Your task to perform on an android device: change notifications settings Image 0: 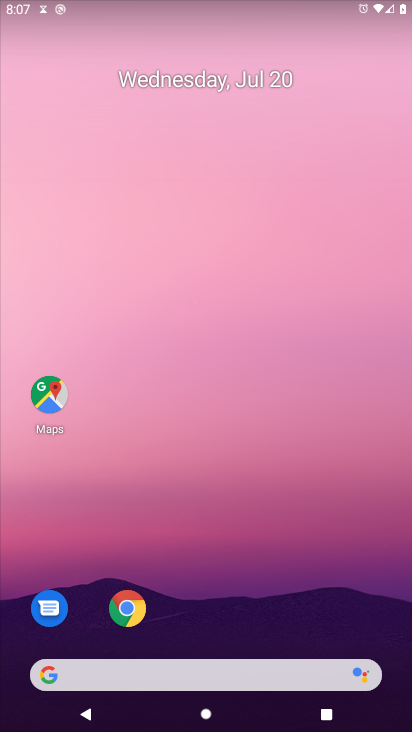
Step 0: drag from (193, 654) to (240, 247)
Your task to perform on an android device: change notifications settings Image 1: 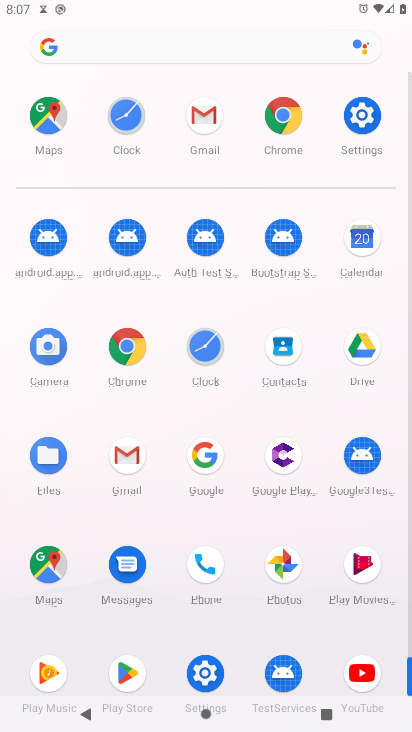
Step 1: click (204, 670)
Your task to perform on an android device: change notifications settings Image 2: 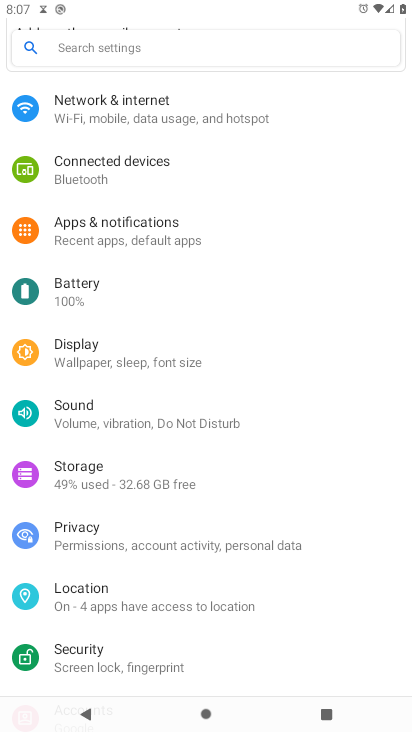
Step 2: click (131, 229)
Your task to perform on an android device: change notifications settings Image 3: 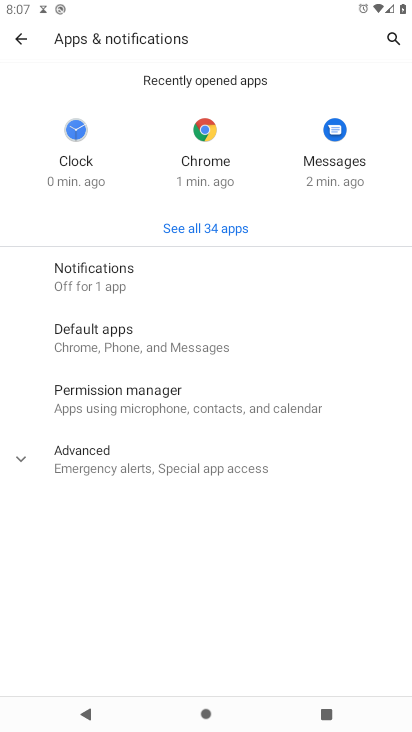
Step 3: click (115, 267)
Your task to perform on an android device: change notifications settings Image 4: 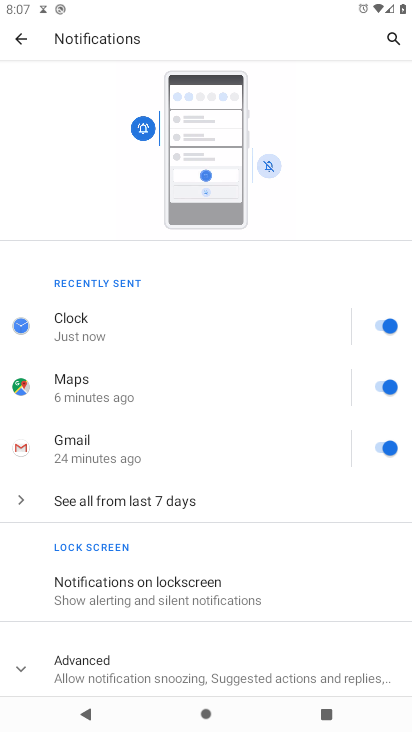
Step 4: click (129, 505)
Your task to perform on an android device: change notifications settings Image 5: 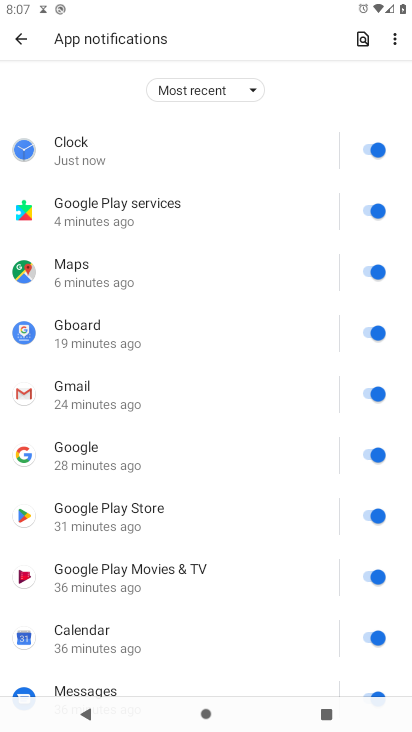
Step 5: click (361, 144)
Your task to perform on an android device: change notifications settings Image 6: 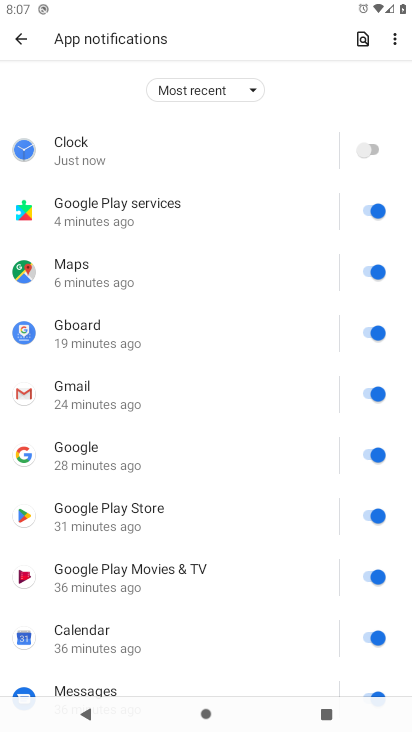
Step 6: click (364, 206)
Your task to perform on an android device: change notifications settings Image 7: 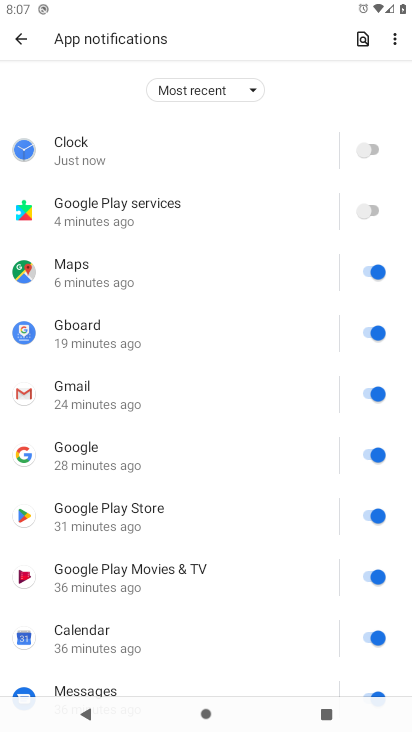
Step 7: click (362, 284)
Your task to perform on an android device: change notifications settings Image 8: 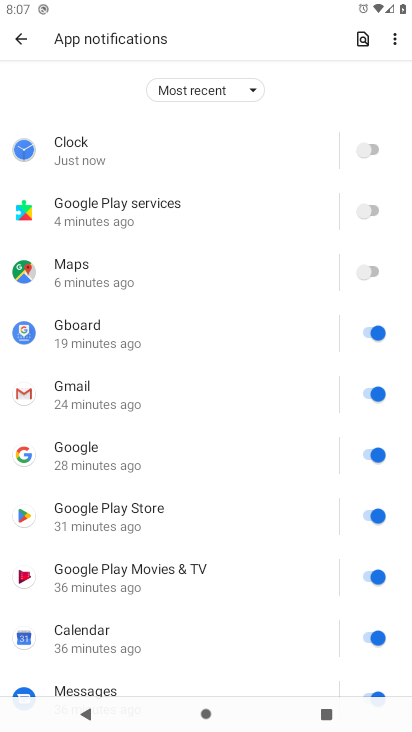
Step 8: click (363, 342)
Your task to perform on an android device: change notifications settings Image 9: 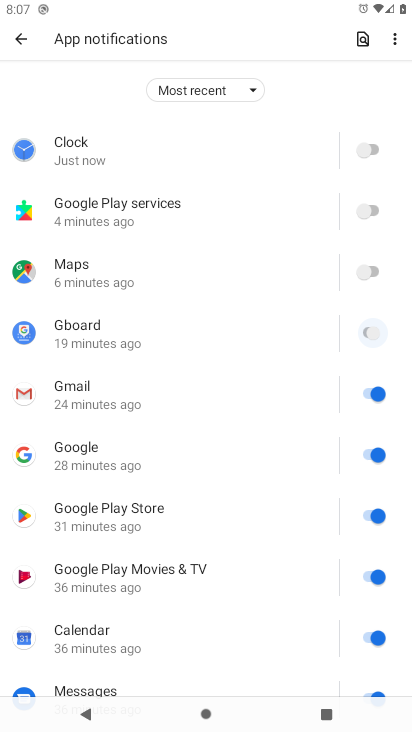
Step 9: click (358, 406)
Your task to perform on an android device: change notifications settings Image 10: 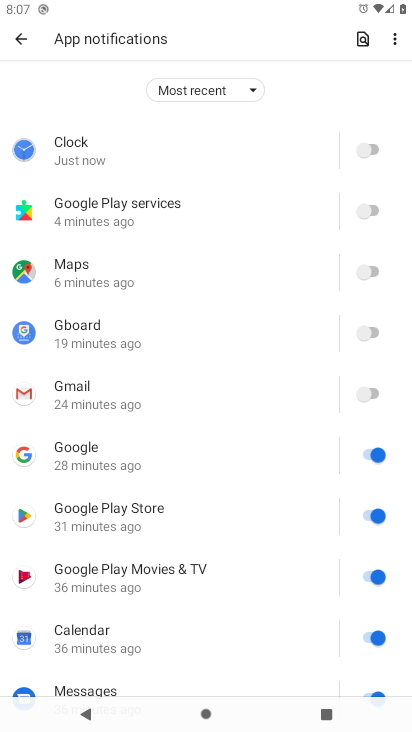
Step 10: click (352, 401)
Your task to perform on an android device: change notifications settings Image 11: 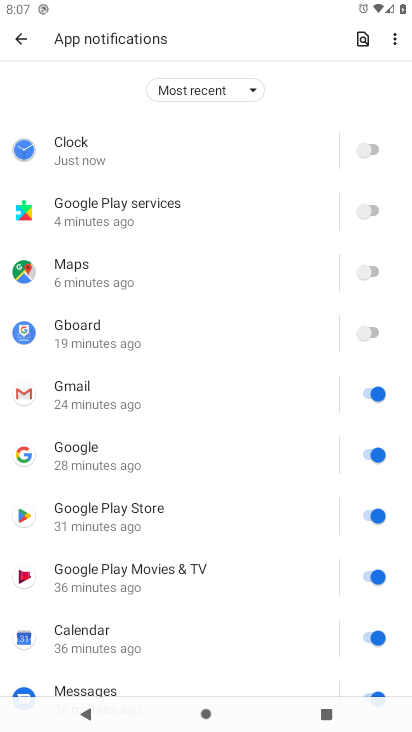
Step 11: click (349, 398)
Your task to perform on an android device: change notifications settings Image 12: 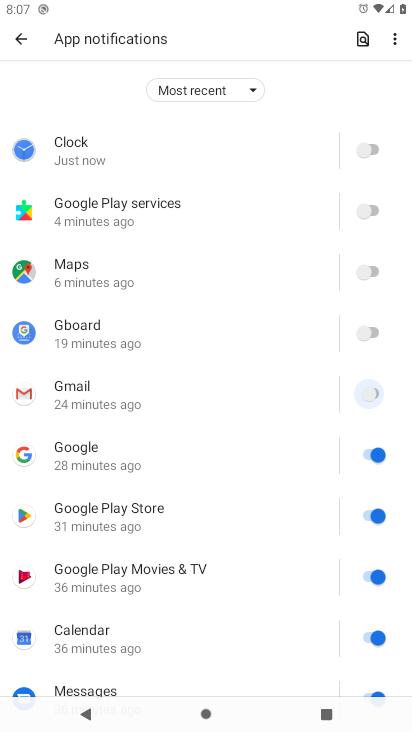
Step 12: click (358, 461)
Your task to perform on an android device: change notifications settings Image 13: 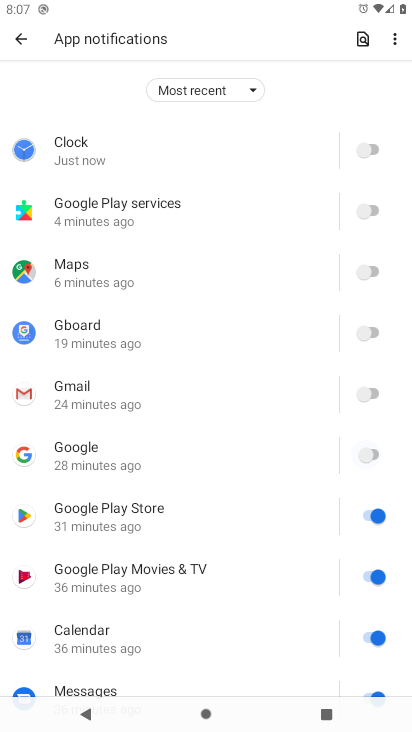
Step 13: click (353, 517)
Your task to perform on an android device: change notifications settings Image 14: 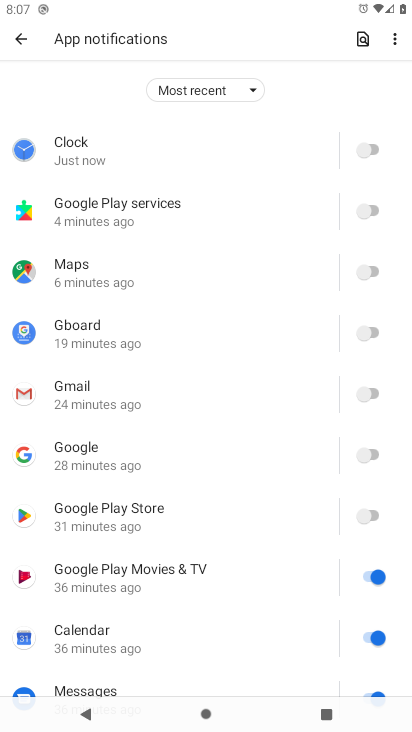
Step 14: click (361, 583)
Your task to perform on an android device: change notifications settings Image 15: 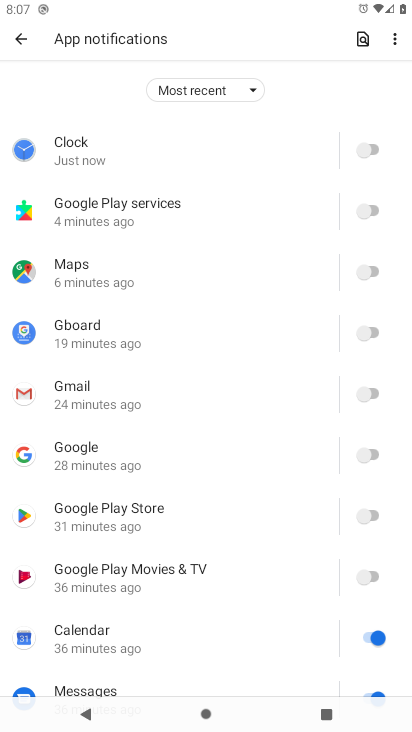
Step 15: click (350, 638)
Your task to perform on an android device: change notifications settings Image 16: 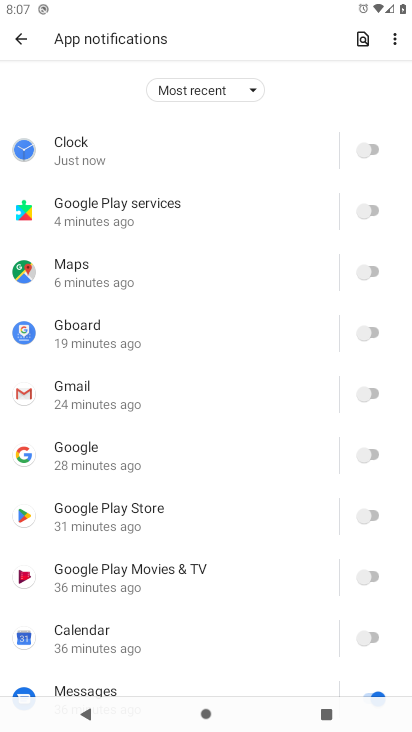
Step 16: drag from (274, 660) to (315, 86)
Your task to perform on an android device: change notifications settings Image 17: 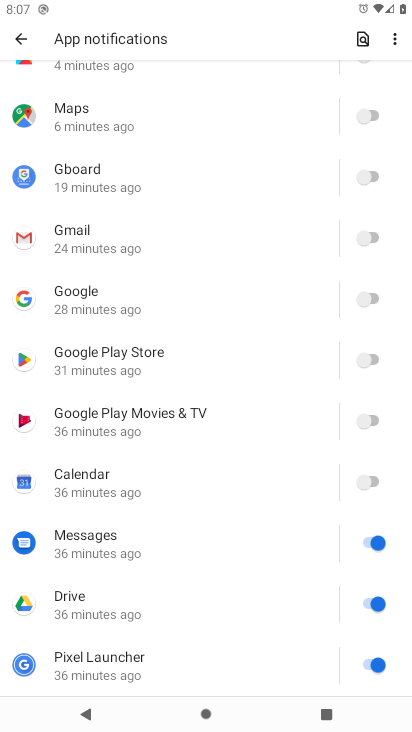
Step 17: click (370, 534)
Your task to perform on an android device: change notifications settings Image 18: 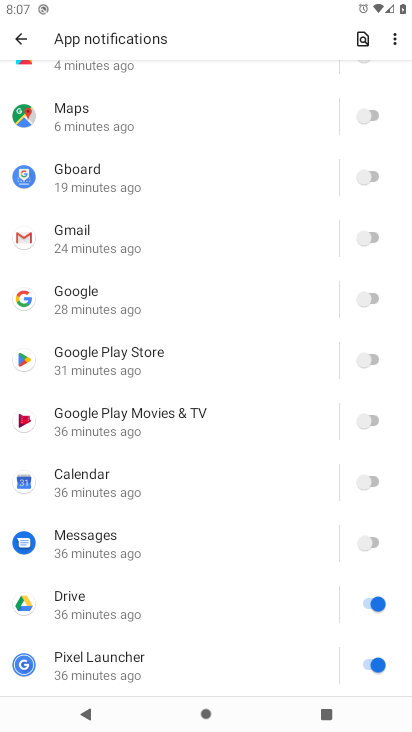
Step 18: click (358, 603)
Your task to perform on an android device: change notifications settings Image 19: 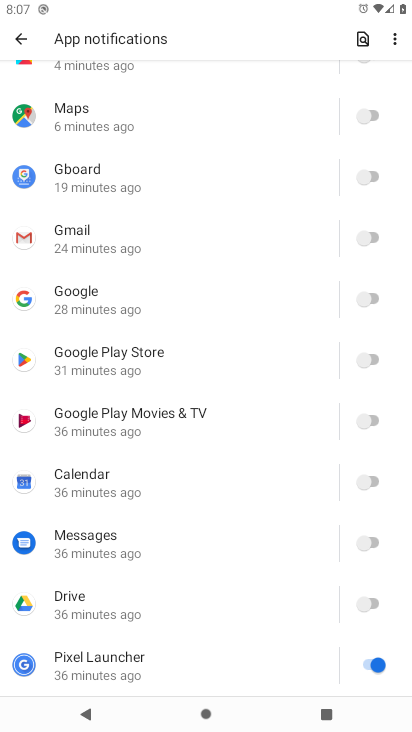
Step 19: click (348, 658)
Your task to perform on an android device: change notifications settings Image 20: 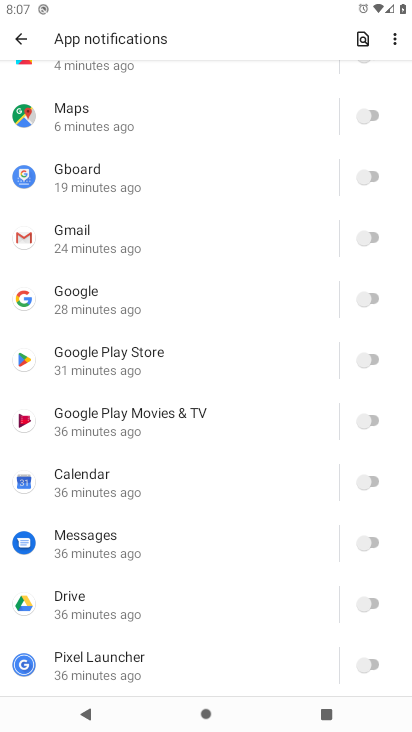
Step 20: task complete